Your task to perform on an android device: change the upload size in google photos Image 0: 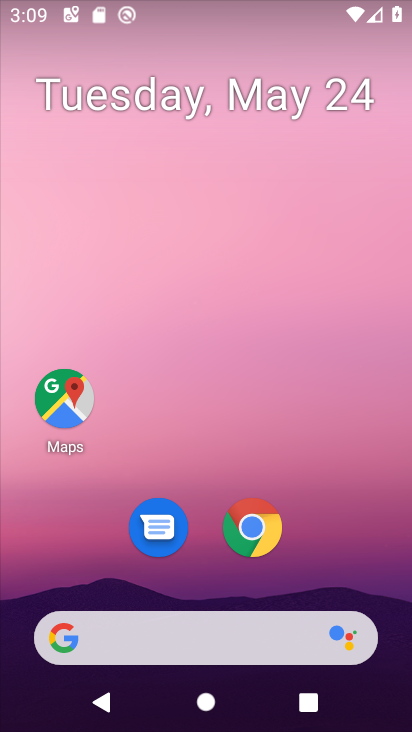
Step 0: drag from (309, 570) to (343, 0)
Your task to perform on an android device: change the upload size in google photos Image 1: 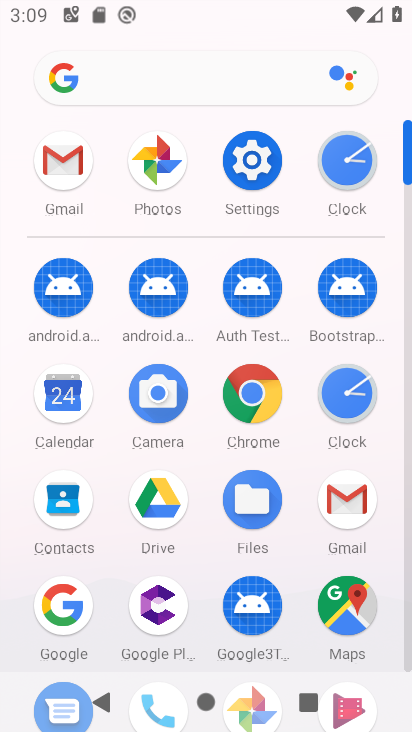
Step 1: click (153, 165)
Your task to perform on an android device: change the upload size in google photos Image 2: 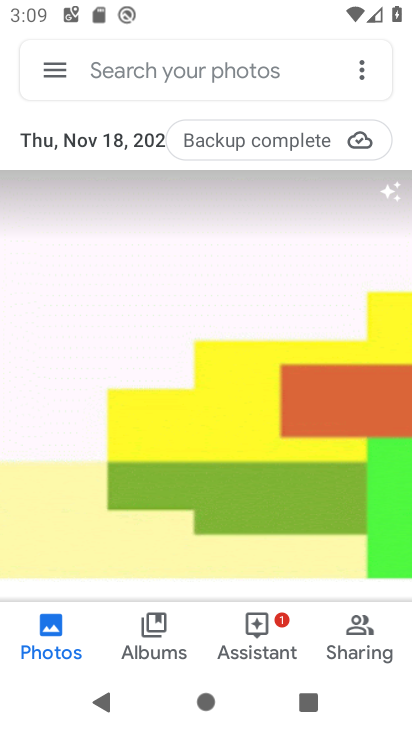
Step 2: click (52, 73)
Your task to perform on an android device: change the upload size in google photos Image 3: 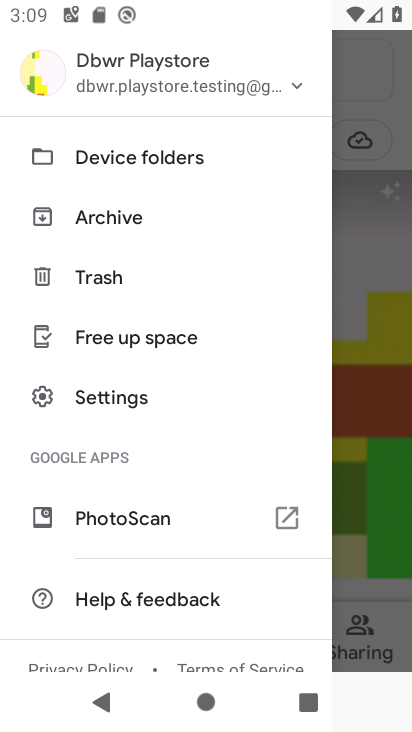
Step 3: click (102, 400)
Your task to perform on an android device: change the upload size in google photos Image 4: 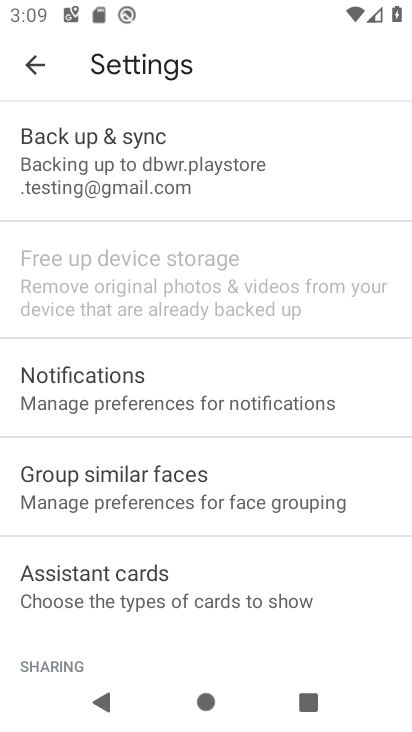
Step 4: click (87, 172)
Your task to perform on an android device: change the upload size in google photos Image 5: 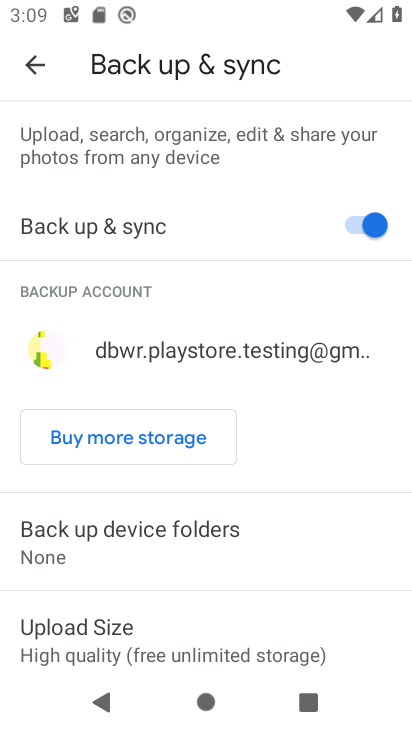
Step 5: drag from (190, 495) to (189, 311)
Your task to perform on an android device: change the upload size in google photos Image 6: 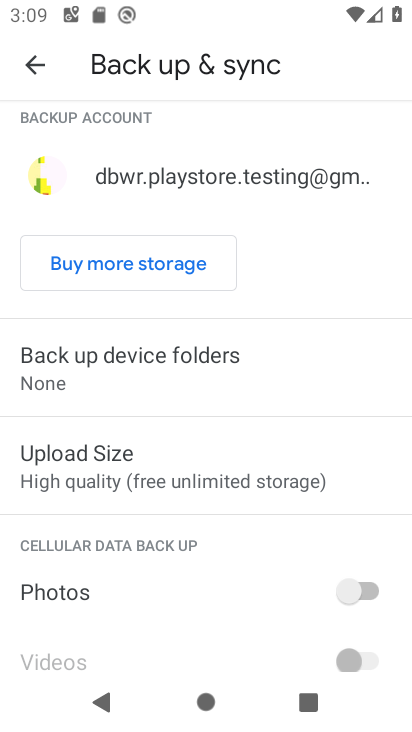
Step 6: click (73, 462)
Your task to perform on an android device: change the upload size in google photos Image 7: 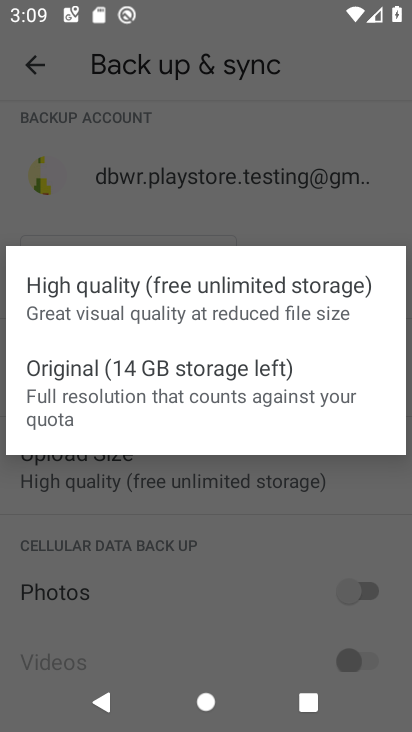
Step 7: click (45, 380)
Your task to perform on an android device: change the upload size in google photos Image 8: 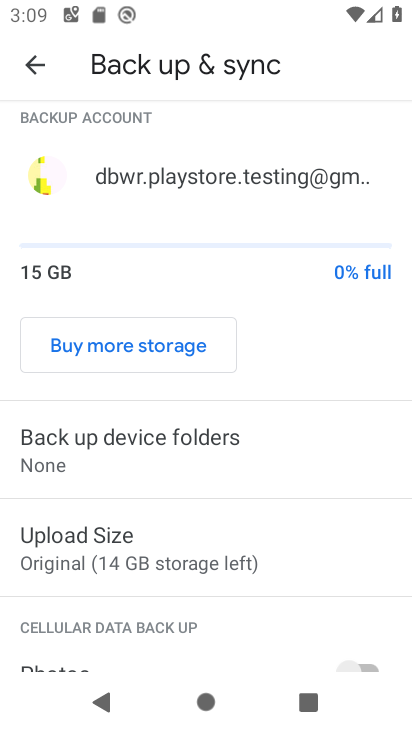
Step 8: task complete